Your task to perform on an android device: turn off location Image 0: 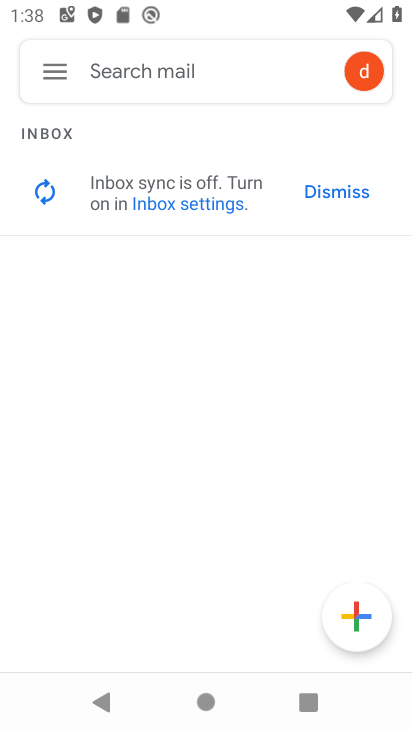
Step 0: press home button
Your task to perform on an android device: turn off location Image 1: 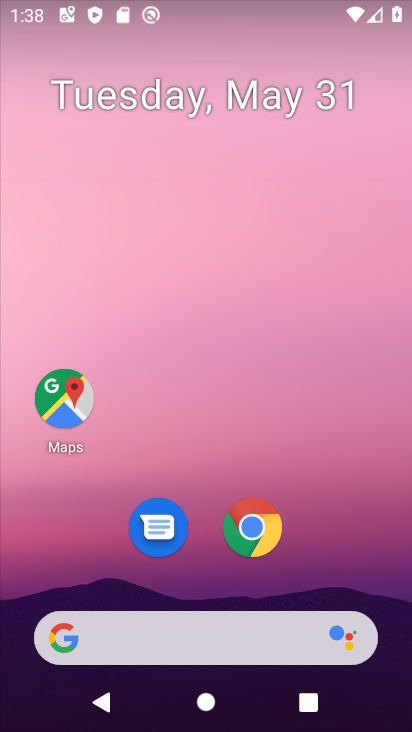
Step 1: drag from (369, 536) to (325, 169)
Your task to perform on an android device: turn off location Image 2: 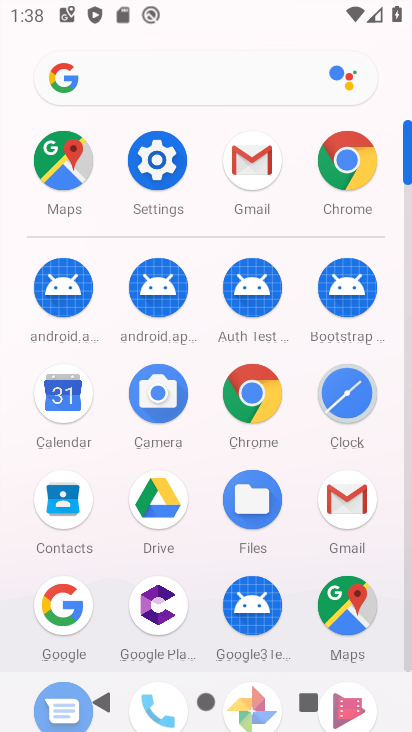
Step 2: click (162, 157)
Your task to perform on an android device: turn off location Image 3: 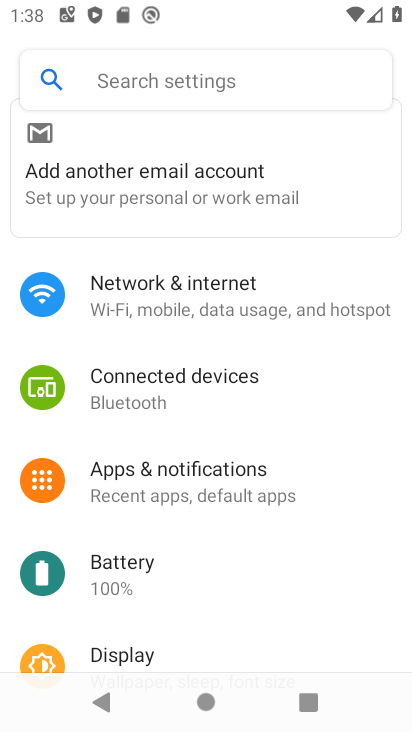
Step 3: drag from (211, 509) to (231, 241)
Your task to perform on an android device: turn off location Image 4: 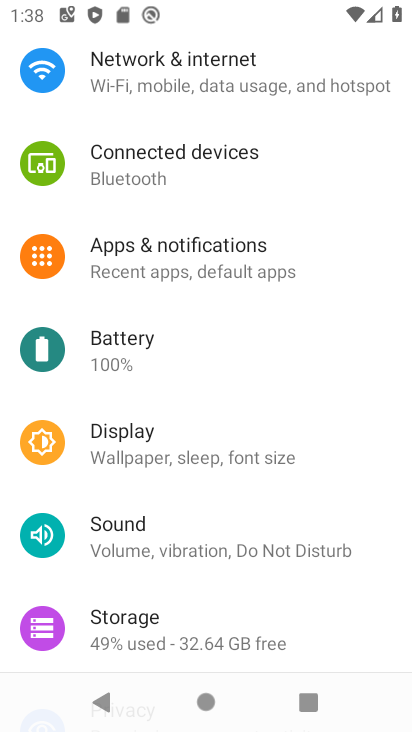
Step 4: drag from (230, 568) to (311, 266)
Your task to perform on an android device: turn off location Image 5: 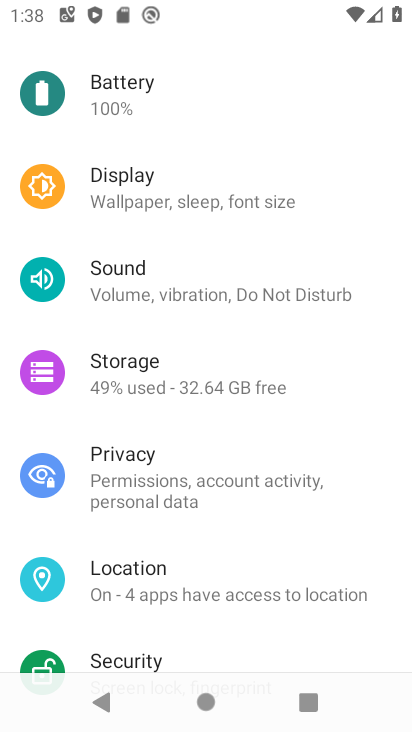
Step 5: click (178, 569)
Your task to perform on an android device: turn off location Image 6: 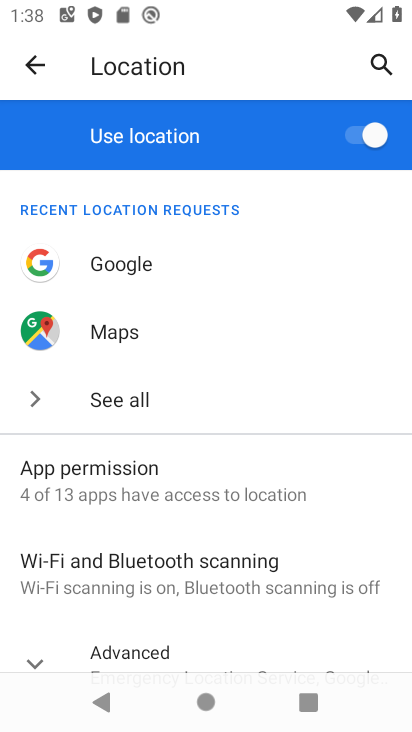
Step 6: click (368, 135)
Your task to perform on an android device: turn off location Image 7: 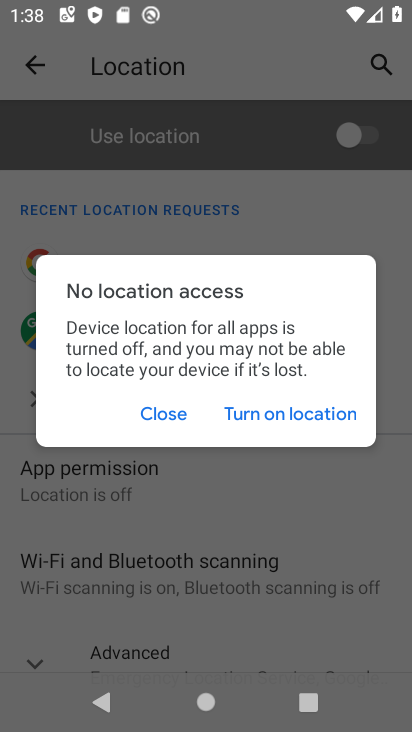
Step 7: task complete